Your task to perform on an android device: set the timer Image 0: 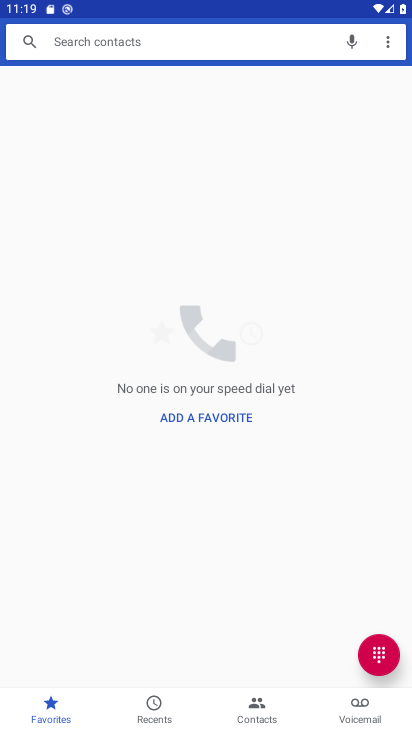
Step 0: press home button
Your task to perform on an android device: set the timer Image 1: 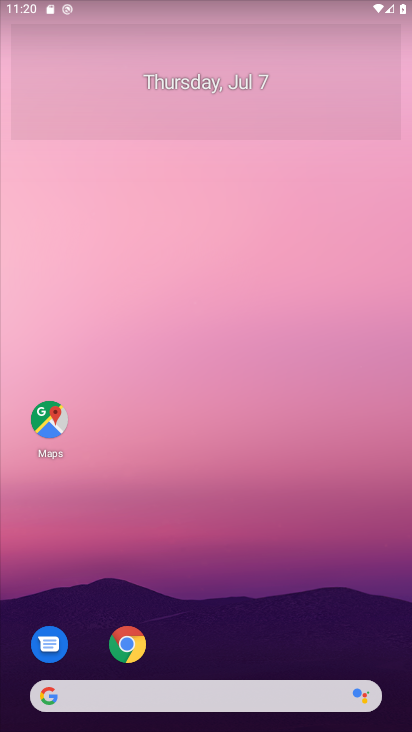
Step 1: drag from (274, 603) to (187, 7)
Your task to perform on an android device: set the timer Image 2: 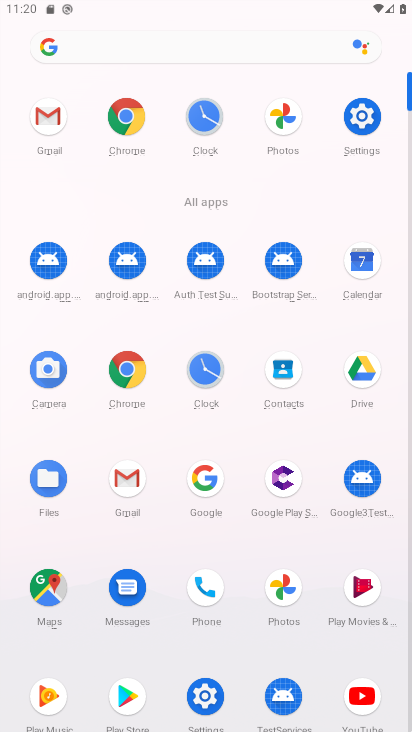
Step 2: click (200, 362)
Your task to perform on an android device: set the timer Image 3: 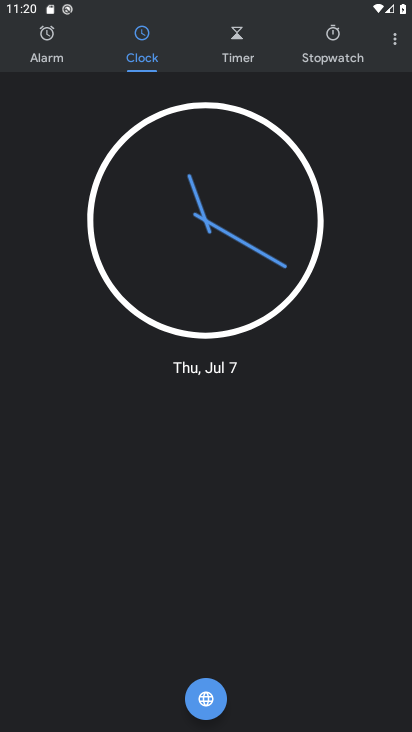
Step 3: click (227, 19)
Your task to perform on an android device: set the timer Image 4: 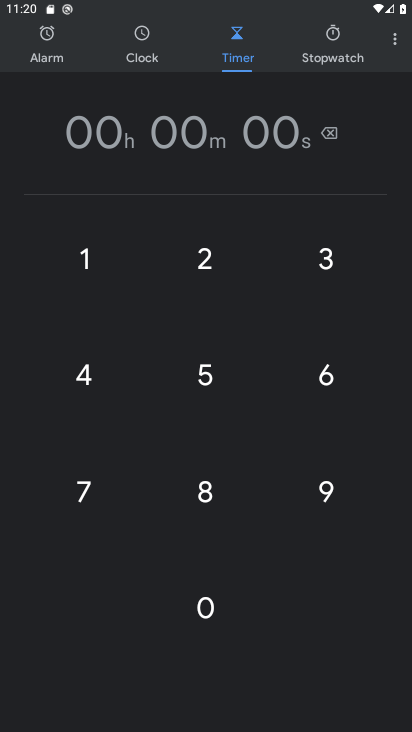
Step 4: click (86, 261)
Your task to perform on an android device: set the timer Image 5: 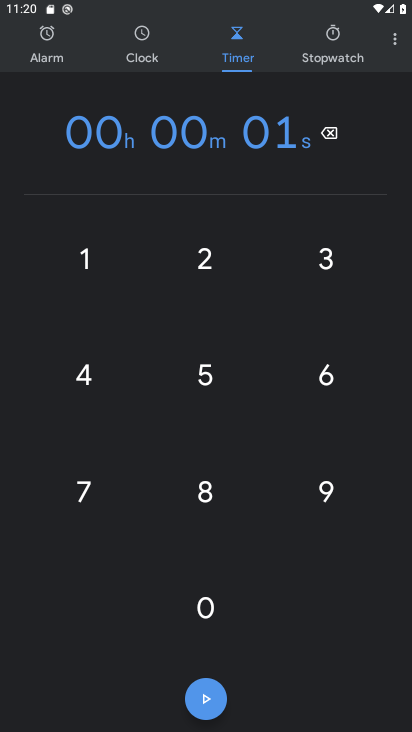
Step 5: click (99, 381)
Your task to perform on an android device: set the timer Image 6: 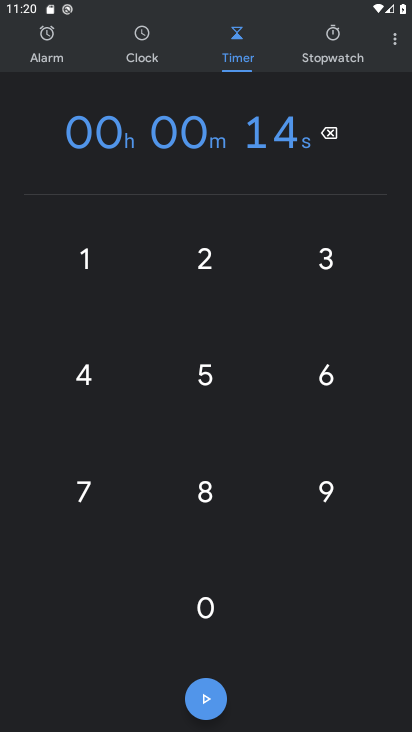
Step 6: click (199, 370)
Your task to perform on an android device: set the timer Image 7: 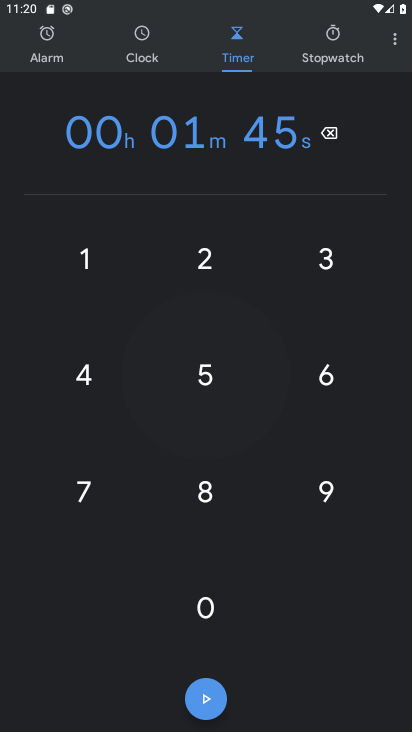
Step 7: click (210, 248)
Your task to perform on an android device: set the timer Image 8: 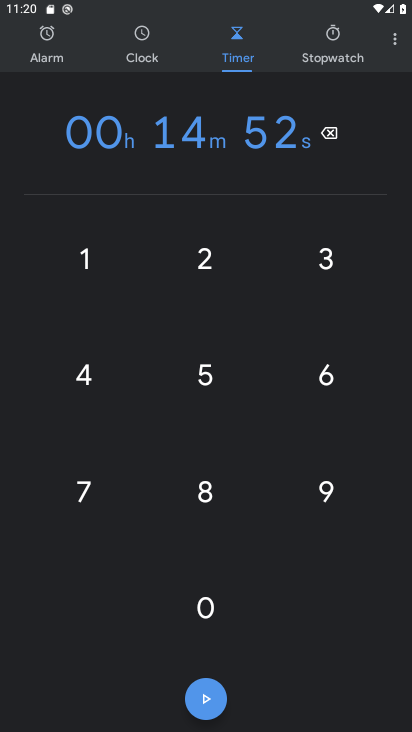
Step 8: click (330, 260)
Your task to perform on an android device: set the timer Image 9: 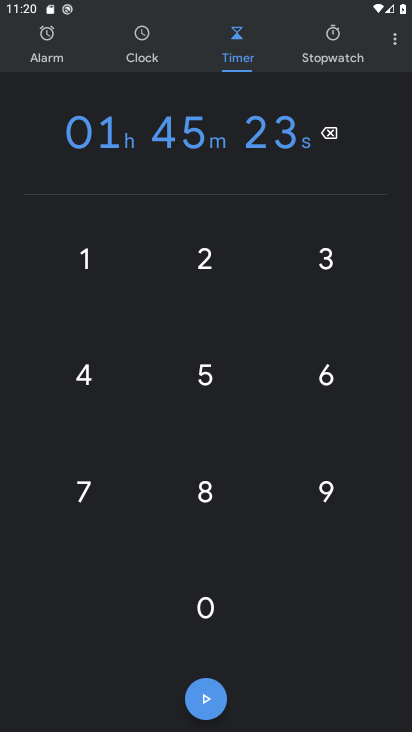
Step 9: click (330, 374)
Your task to perform on an android device: set the timer Image 10: 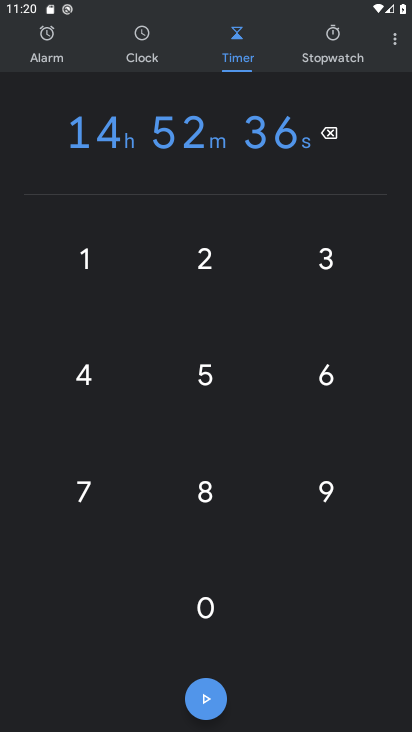
Step 10: click (209, 707)
Your task to perform on an android device: set the timer Image 11: 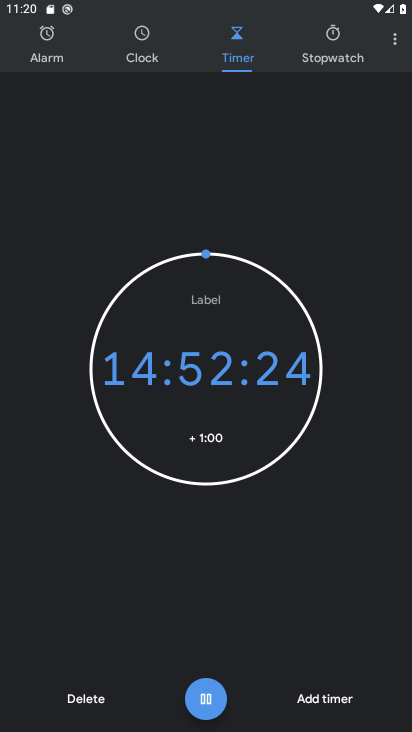
Step 11: task complete